Your task to perform on an android device: Open Google Image 0: 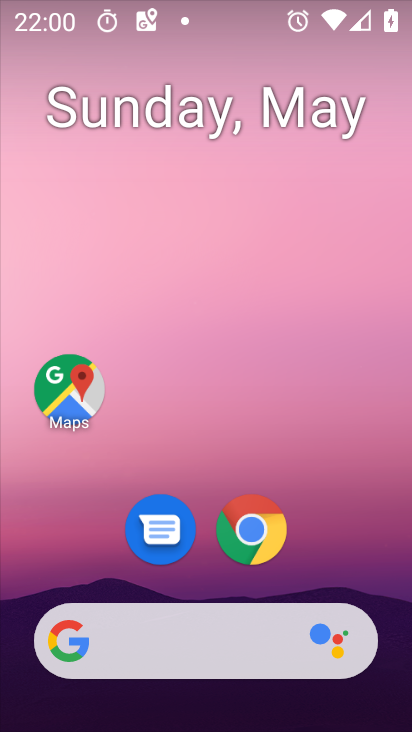
Step 0: drag from (387, 613) to (319, 0)
Your task to perform on an android device: Open Google Image 1: 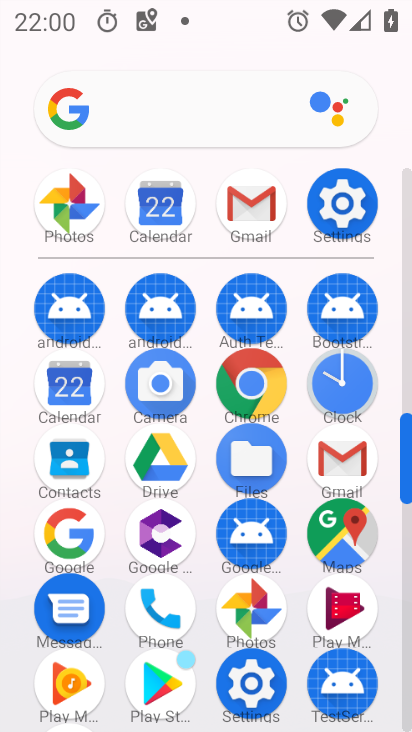
Step 1: click (78, 546)
Your task to perform on an android device: Open Google Image 2: 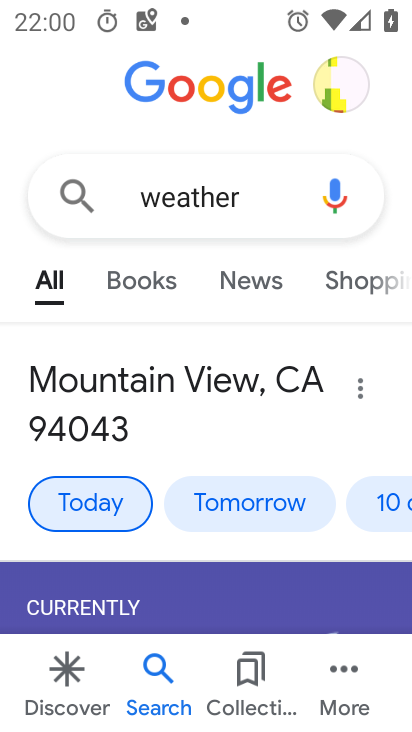
Step 2: task complete